Your task to perform on an android device: Open CNN.com Image 0: 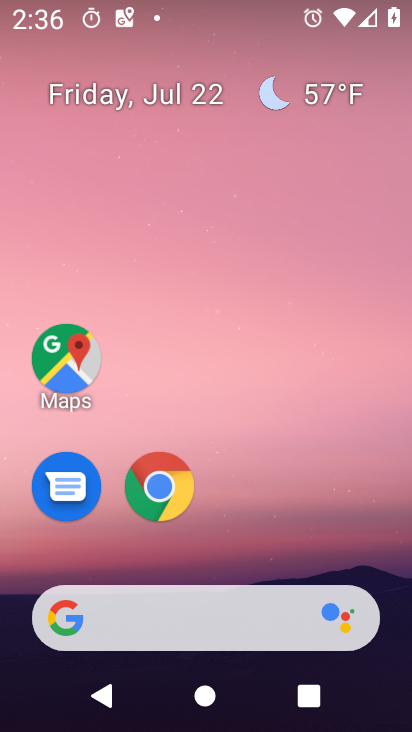
Step 0: press home button
Your task to perform on an android device: Open CNN.com Image 1: 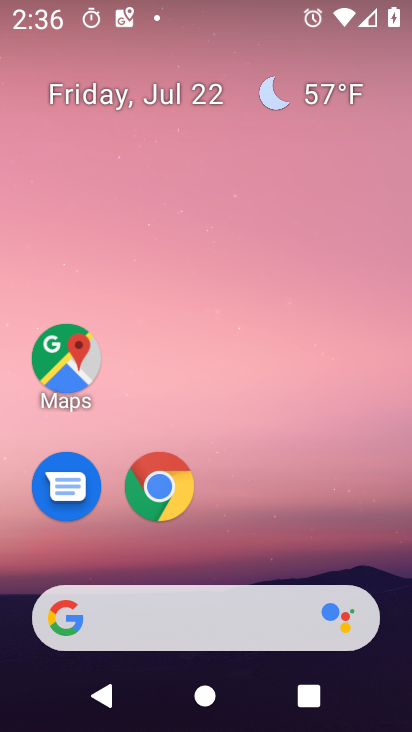
Step 1: drag from (358, 545) to (362, 160)
Your task to perform on an android device: Open CNN.com Image 2: 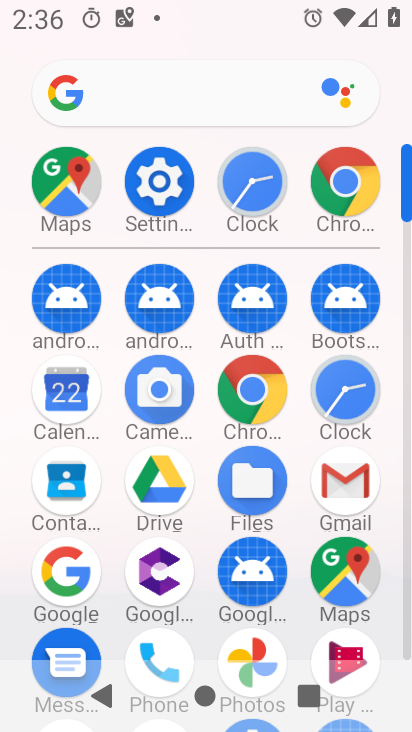
Step 2: click (268, 383)
Your task to perform on an android device: Open CNN.com Image 3: 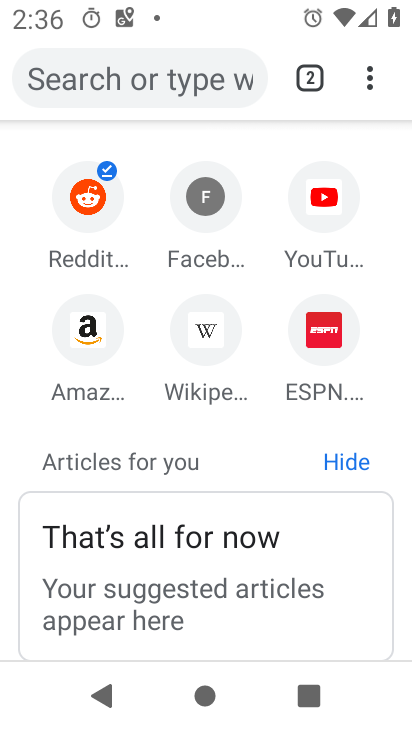
Step 3: click (215, 78)
Your task to perform on an android device: Open CNN.com Image 4: 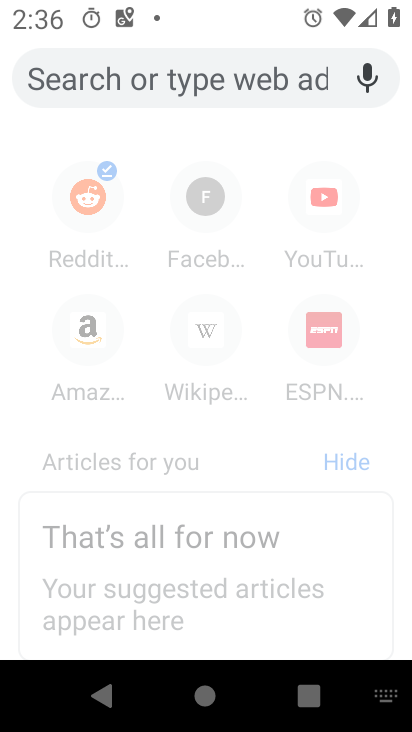
Step 4: type "cnn.com"
Your task to perform on an android device: Open CNN.com Image 5: 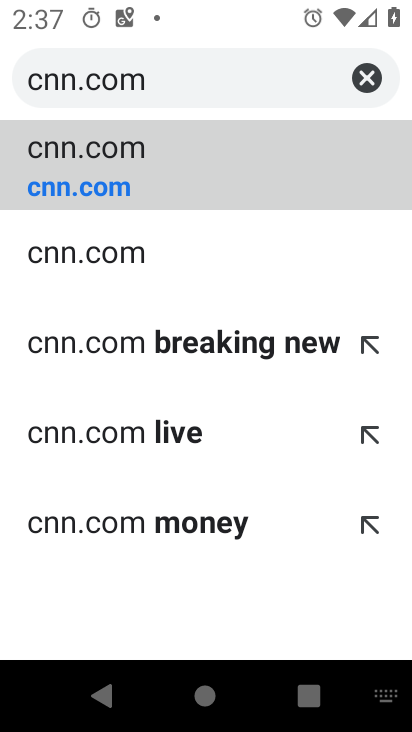
Step 5: click (342, 169)
Your task to perform on an android device: Open CNN.com Image 6: 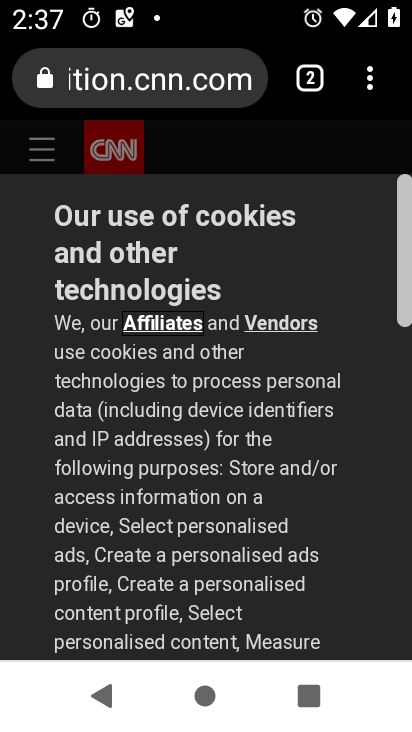
Step 6: task complete